Your task to perform on an android device: see sites visited before in the chrome app Image 0: 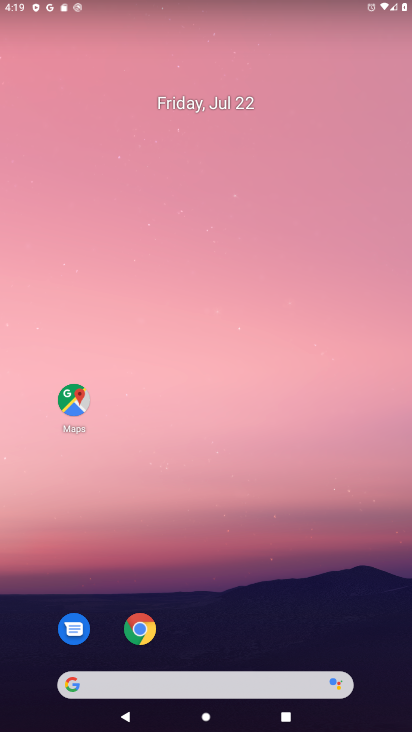
Step 0: drag from (294, 685) to (316, 53)
Your task to perform on an android device: see sites visited before in the chrome app Image 1: 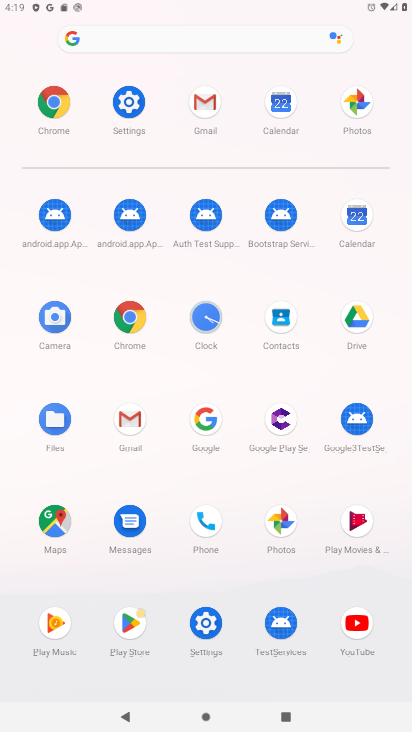
Step 1: click (143, 323)
Your task to perform on an android device: see sites visited before in the chrome app Image 2: 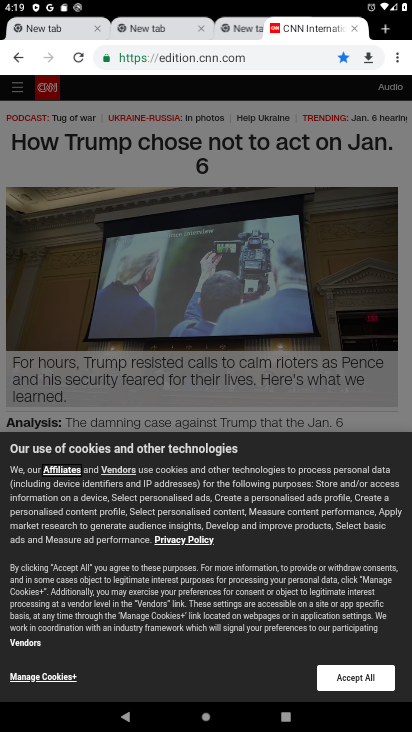
Step 2: click (396, 60)
Your task to perform on an android device: see sites visited before in the chrome app Image 3: 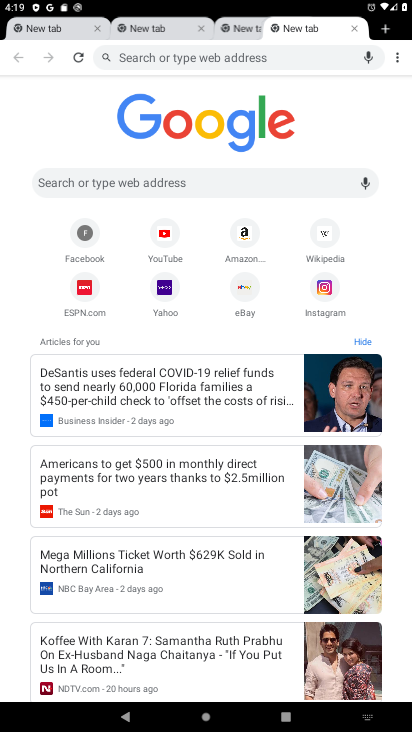
Step 3: click (396, 60)
Your task to perform on an android device: see sites visited before in the chrome app Image 4: 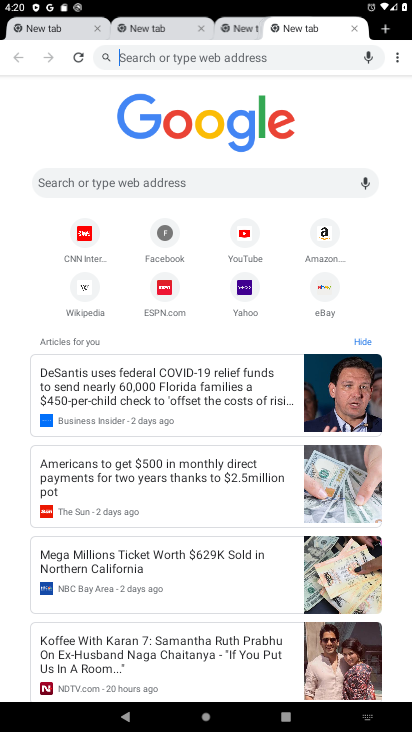
Step 4: click (397, 58)
Your task to perform on an android device: see sites visited before in the chrome app Image 5: 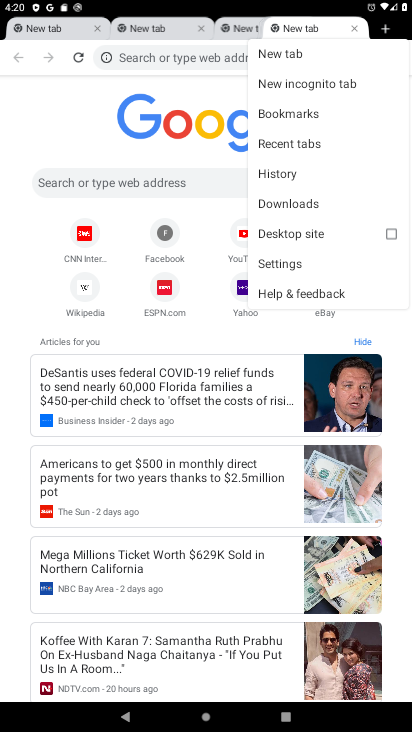
Step 5: click (288, 177)
Your task to perform on an android device: see sites visited before in the chrome app Image 6: 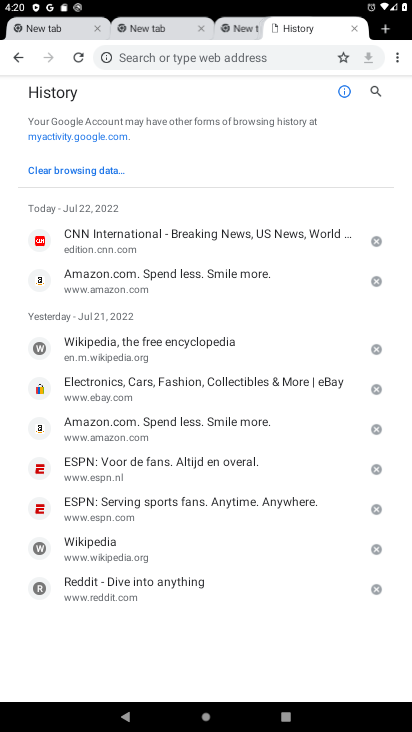
Step 6: task complete